Your task to perform on an android device: Go to Google maps Image 0: 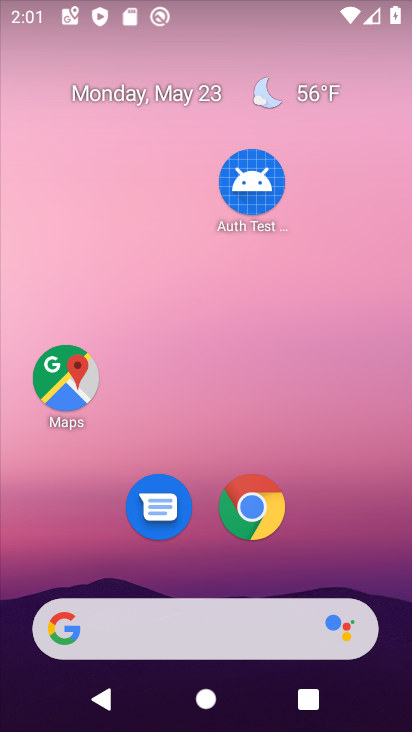
Step 0: click (203, 264)
Your task to perform on an android device: Go to Google maps Image 1: 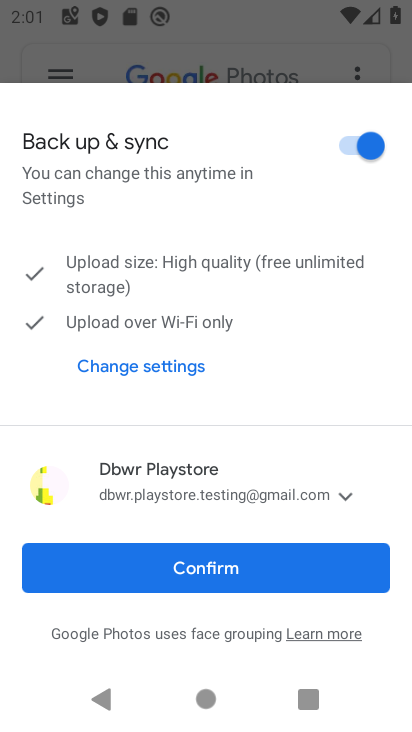
Step 1: press back button
Your task to perform on an android device: Go to Google maps Image 2: 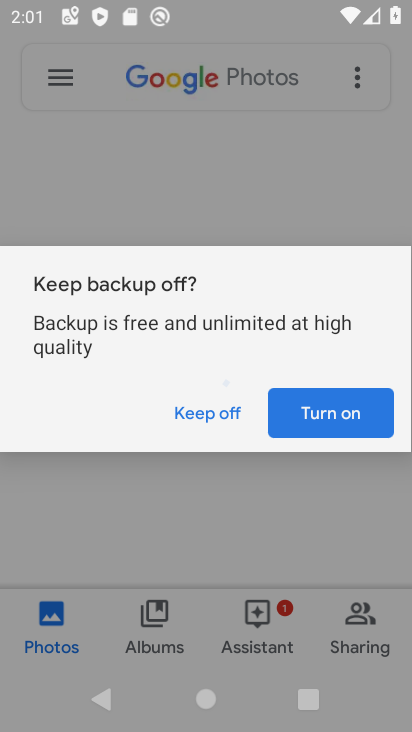
Step 2: click (265, 53)
Your task to perform on an android device: Go to Google maps Image 3: 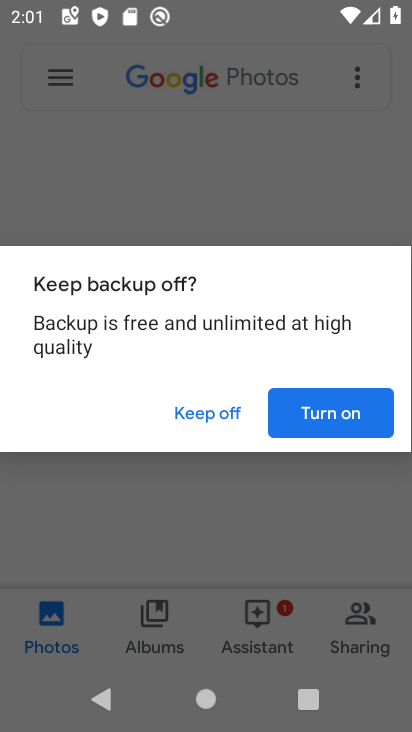
Step 3: click (208, 415)
Your task to perform on an android device: Go to Google maps Image 4: 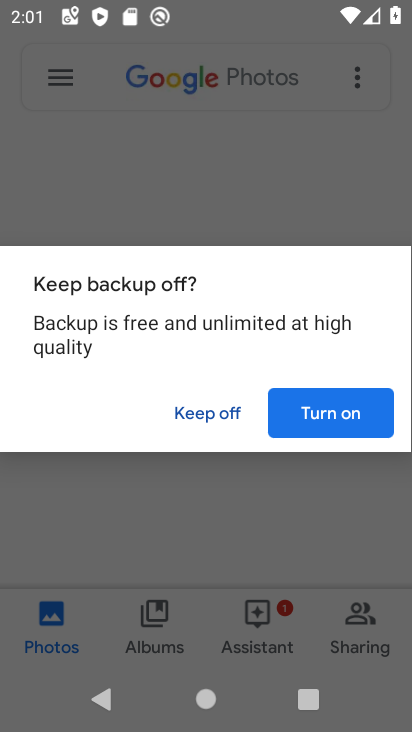
Step 4: click (208, 415)
Your task to perform on an android device: Go to Google maps Image 5: 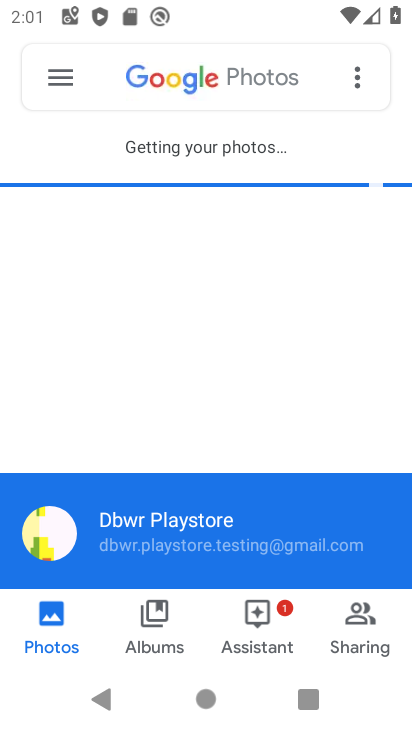
Step 5: click (203, 419)
Your task to perform on an android device: Go to Google maps Image 6: 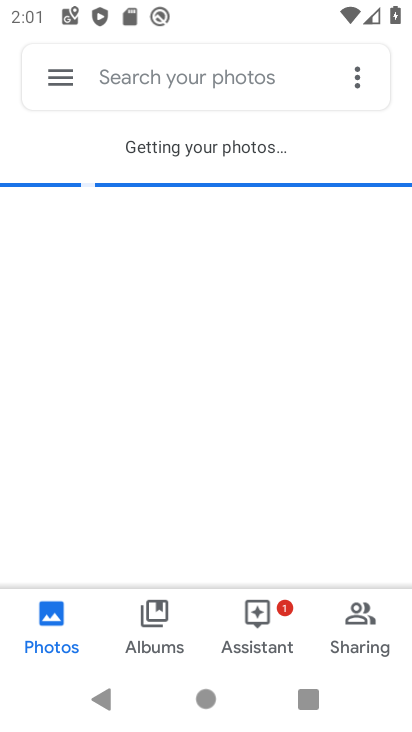
Step 6: press home button
Your task to perform on an android device: Go to Google maps Image 7: 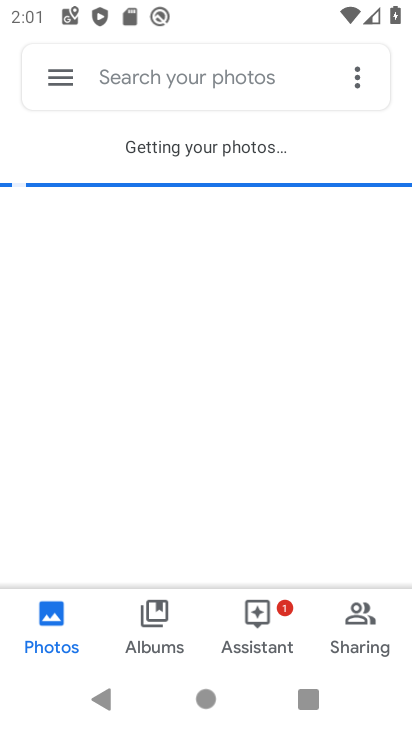
Step 7: press home button
Your task to perform on an android device: Go to Google maps Image 8: 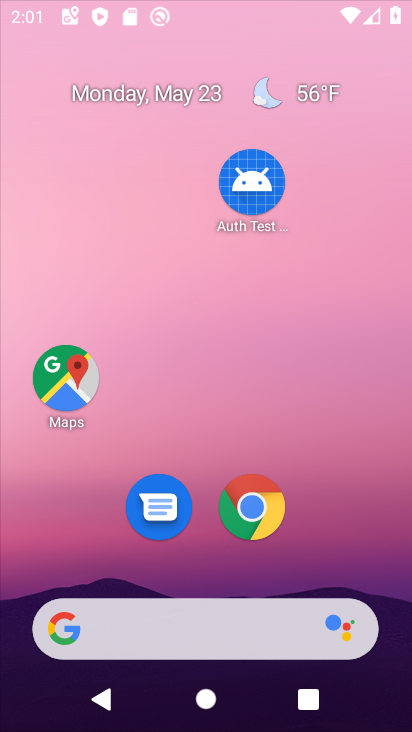
Step 8: press home button
Your task to perform on an android device: Go to Google maps Image 9: 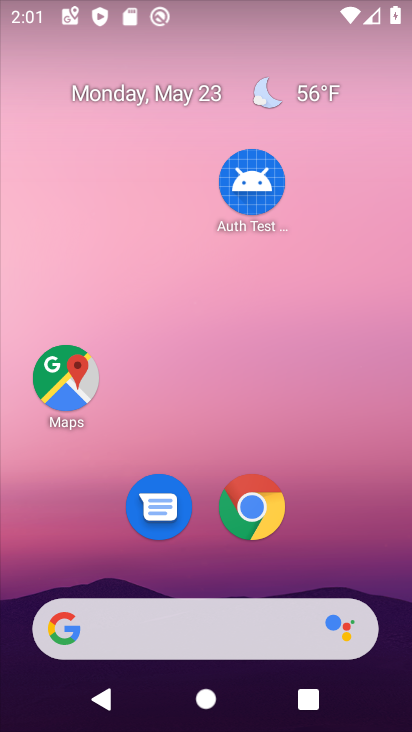
Step 9: press home button
Your task to perform on an android device: Go to Google maps Image 10: 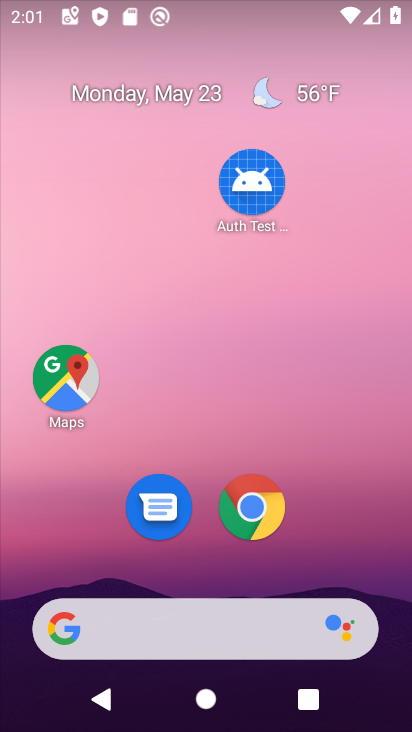
Step 10: drag from (276, 552) to (0, 14)
Your task to perform on an android device: Go to Google maps Image 11: 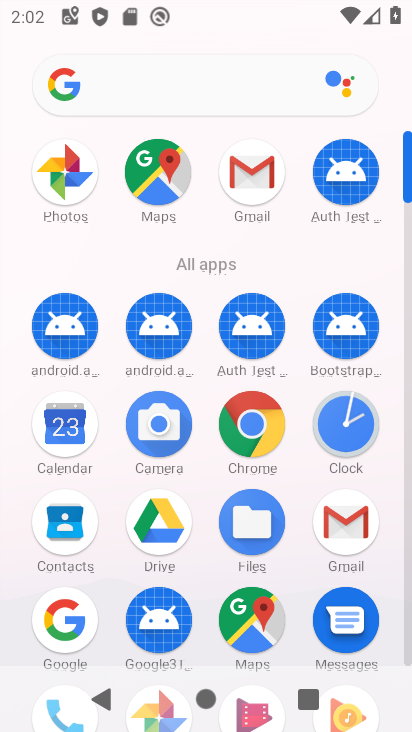
Step 11: click (258, 619)
Your task to perform on an android device: Go to Google maps Image 12: 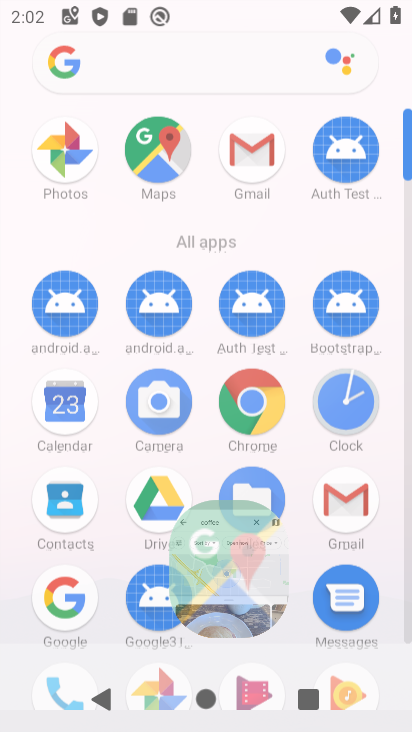
Step 12: task complete